Your task to perform on an android device: add a label to a message in the gmail app Image 0: 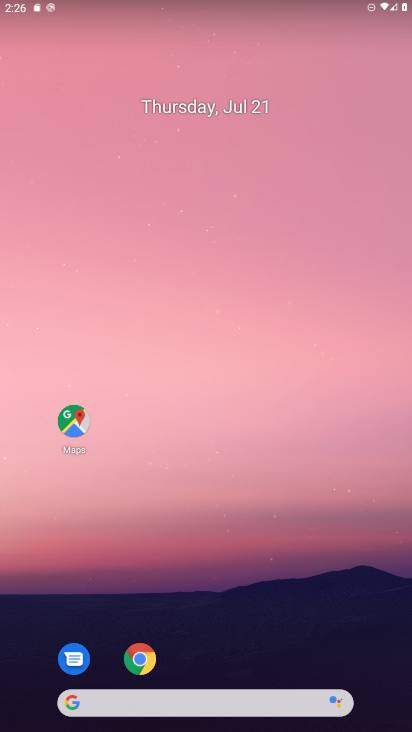
Step 0: drag from (40, 630) to (267, 125)
Your task to perform on an android device: add a label to a message in the gmail app Image 1: 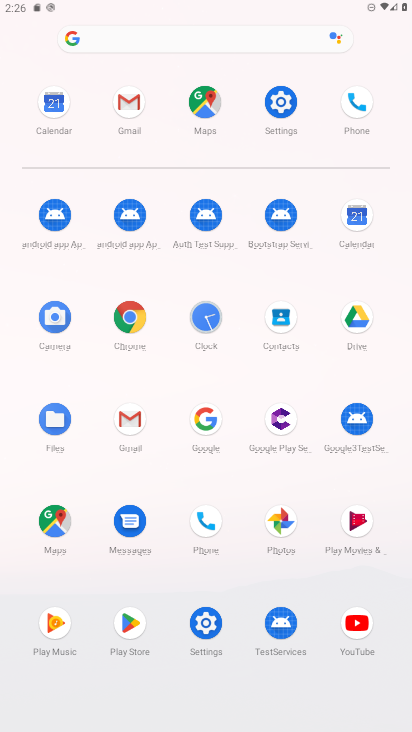
Step 1: click (117, 116)
Your task to perform on an android device: add a label to a message in the gmail app Image 2: 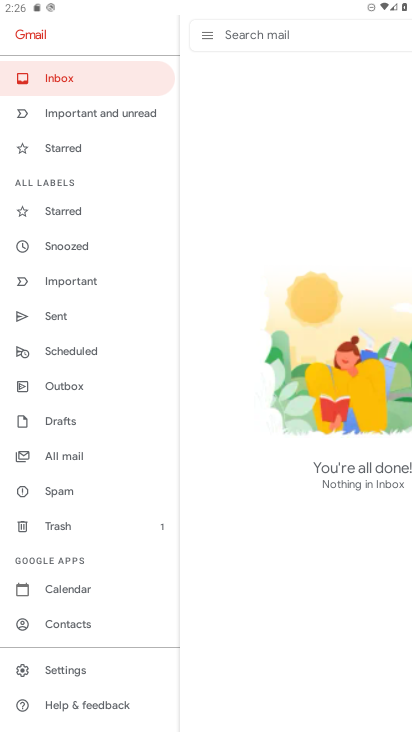
Step 2: task complete